Your task to perform on an android device: uninstall "Google Find My Device" Image 0: 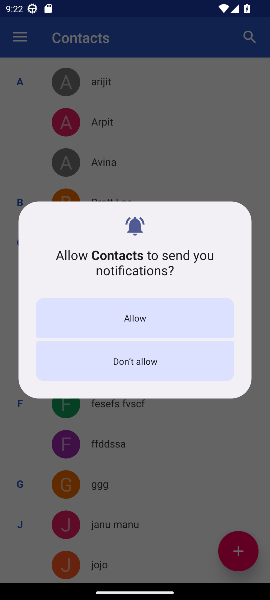
Step 0: press home button
Your task to perform on an android device: uninstall "Google Find My Device" Image 1: 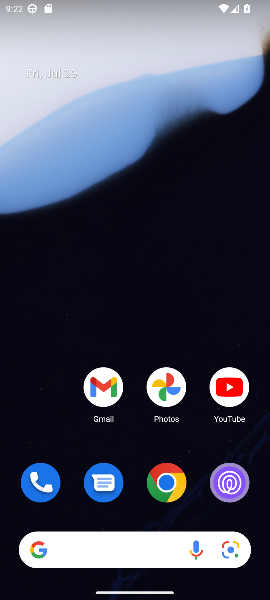
Step 1: drag from (137, 595) to (132, 7)
Your task to perform on an android device: uninstall "Google Find My Device" Image 2: 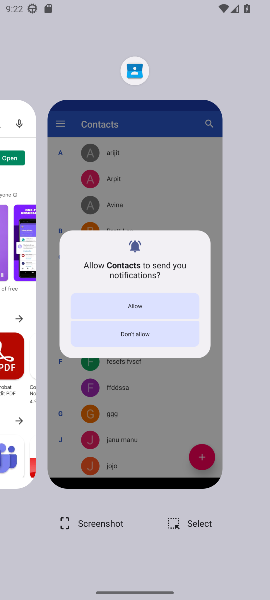
Step 2: click (9, 254)
Your task to perform on an android device: uninstall "Google Find My Device" Image 3: 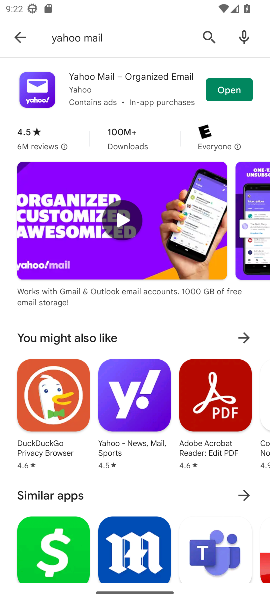
Step 3: press home button
Your task to perform on an android device: uninstall "Google Find My Device" Image 4: 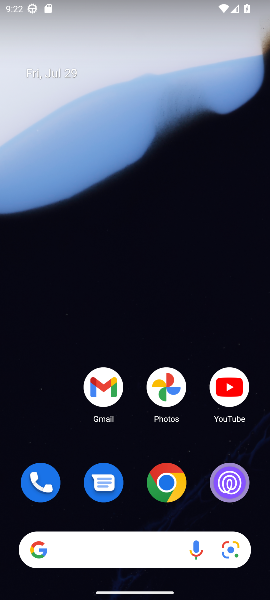
Step 4: drag from (139, 588) to (137, 67)
Your task to perform on an android device: uninstall "Google Find My Device" Image 5: 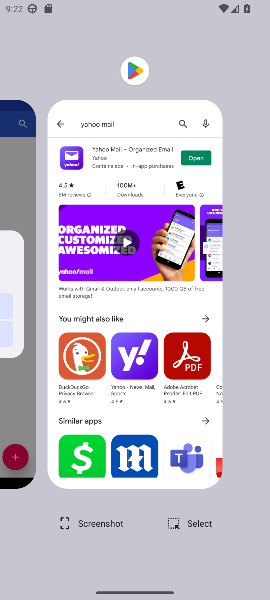
Step 5: click (131, 241)
Your task to perform on an android device: uninstall "Google Find My Device" Image 6: 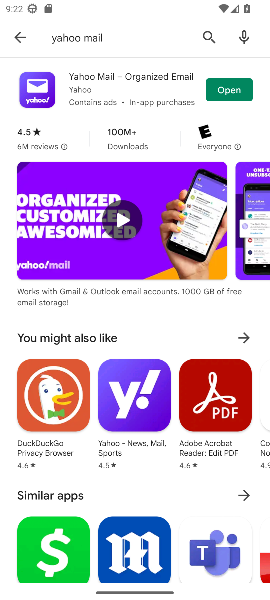
Step 6: click (208, 31)
Your task to perform on an android device: uninstall "Google Find My Device" Image 7: 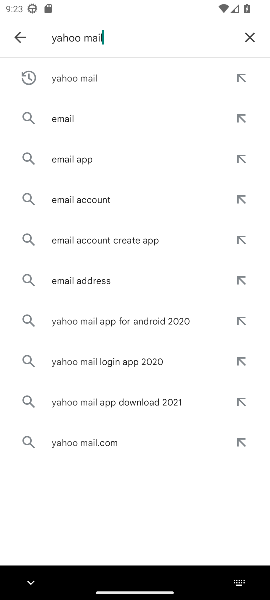
Step 7: click (245, 37)
Your task to perform on an android device: uninstall "Google Find My Device" Image 8: 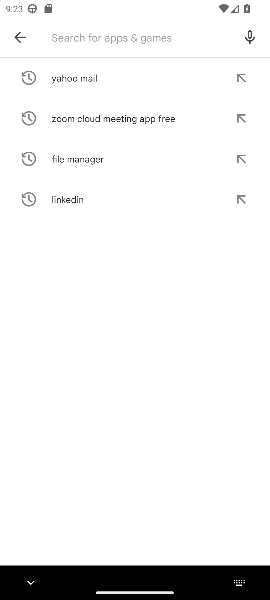
Step 8: type "Google Find My Device"
Your task to perform on an android device: uninstall "Google Find My Device" Image 9: 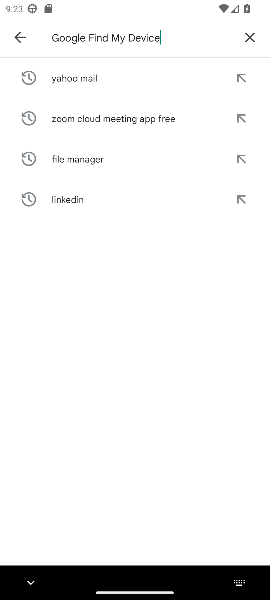
Step 9: type ""
Your task to perform on an android device: uninstall "Google Find My Device" Image 10: 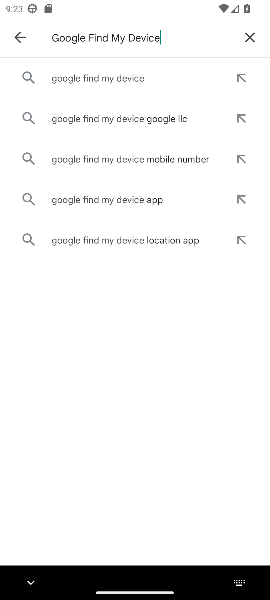
Step 10: click (94, 78)
Your task to perform on an android device: uninstall "Google Find My Device" Image 11: 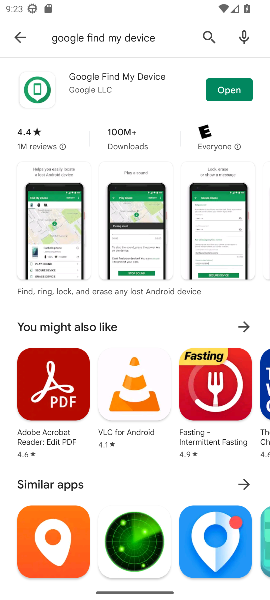
Step 11: task complete